Your task to perform on an android device: See recent photos Image 0: 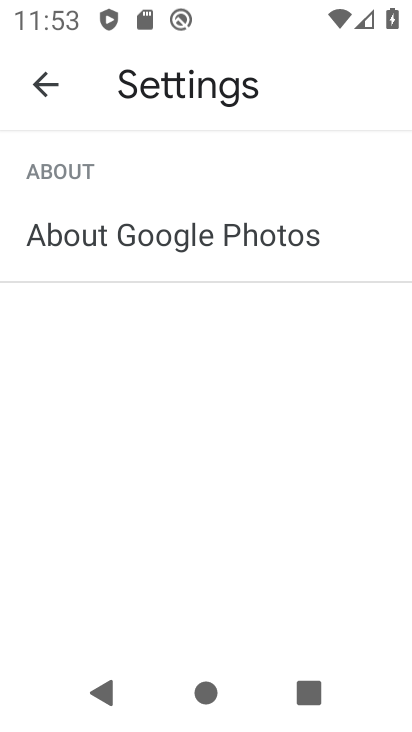
Step 0: click (63, 85)
Your task to perform on an android device: See recent photos Image 1: 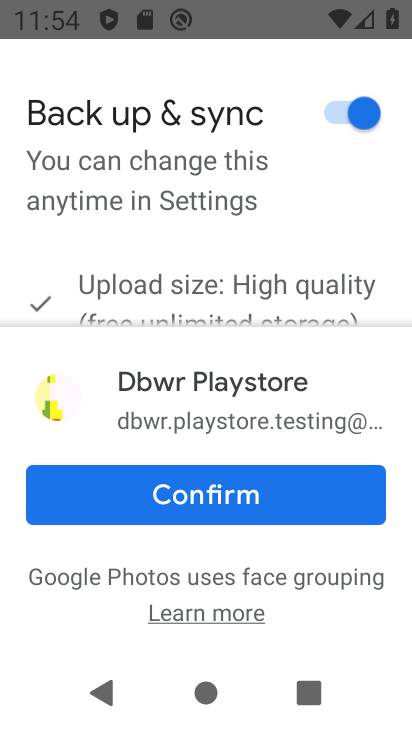
Step 1: click (244, 485)
Your task to perform on an android device: See recent photos Image 2: 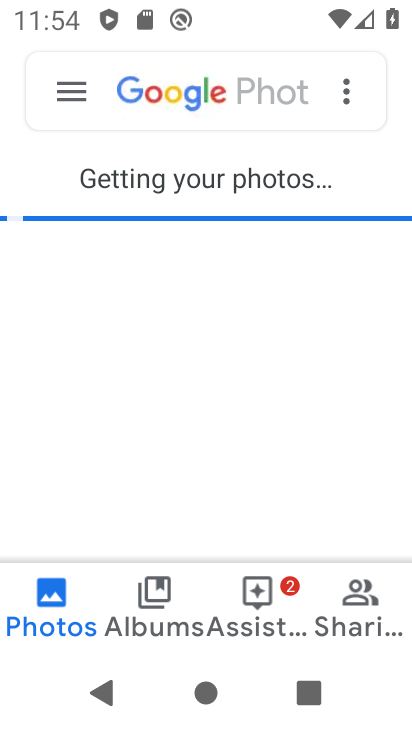
Step 2: click (77, 598)
Your task to perform on an android device: See recent photos Image 3: 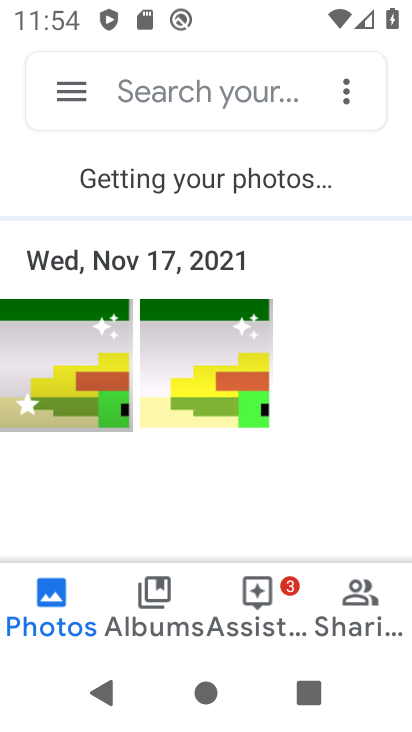
Step 3: click (52, 371)
Your task to perform on an android device: See recent photos Image 4: 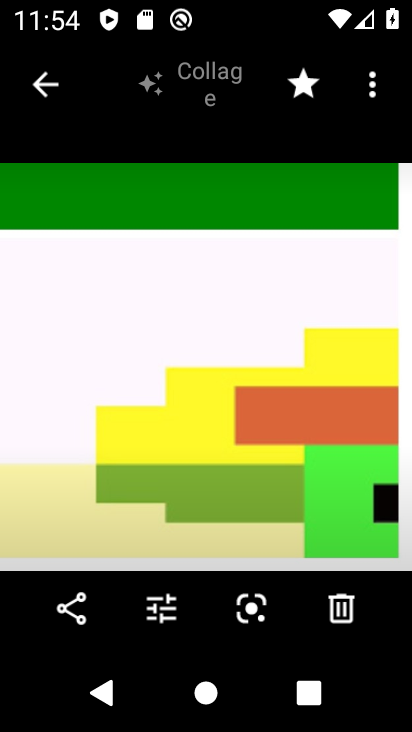
Step 4: task complete